Your task to perform on an android device: find photos in the google photos app Image 0: 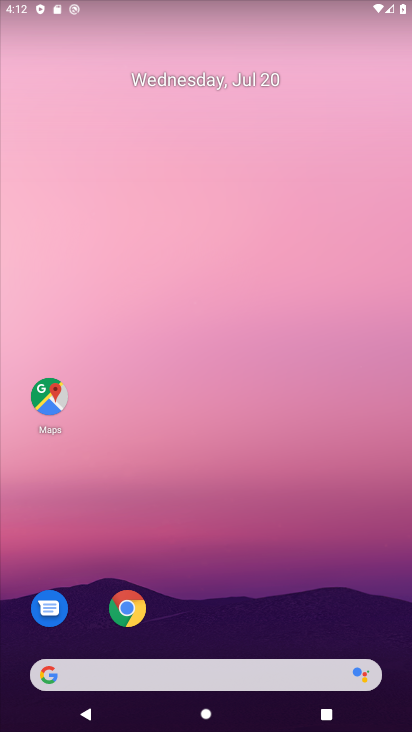
Step 0: click (275, 29)
Your task to perform on an android device: find photos in the google photos app Image 1: 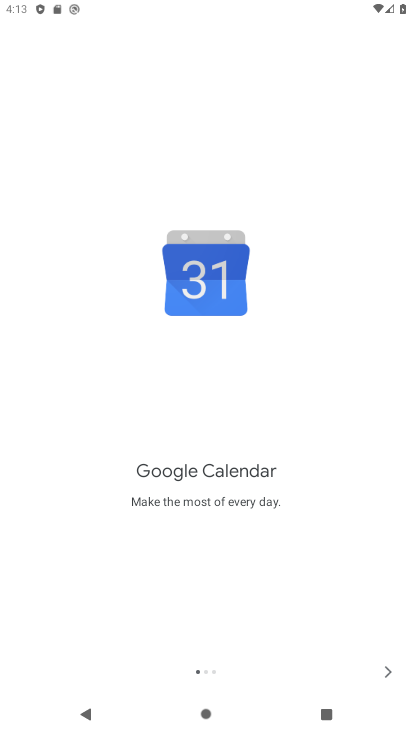
Step 1: press home button
Your task to perform on an android device: find photos in the google photos app Image 2: 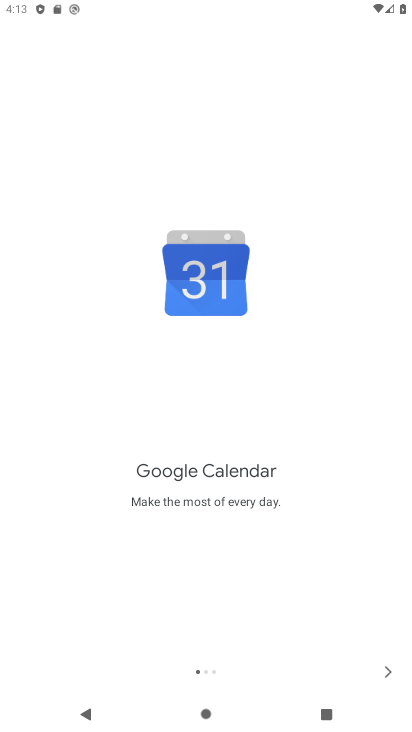
Step 2: press home button
Your task to perform on an android device: find photos in the google photos app Image 3: 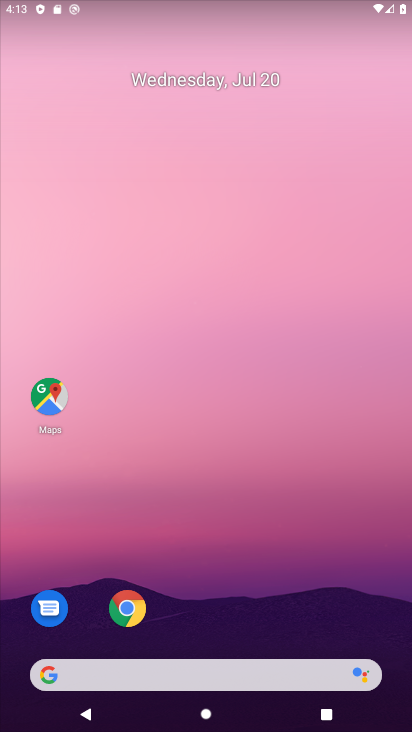
Step 3: drag from (262, 608) to (285, 179)
Your task to perform on an android device: find photos in the google photos app Image 4: 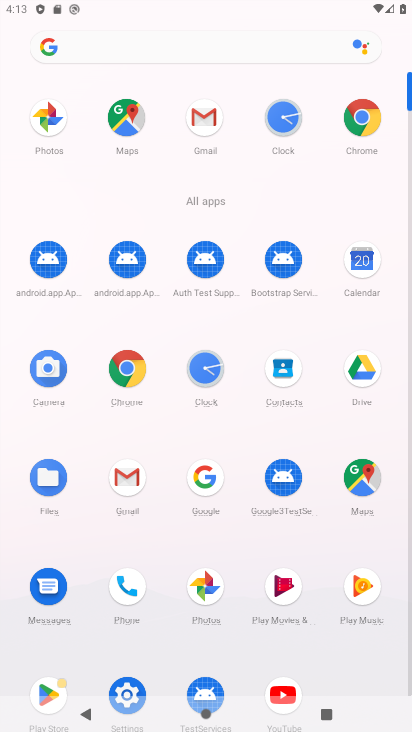
Step 4: click (40, 104)
Your task to perform on an android device: find photos in the google photos app Image 5: 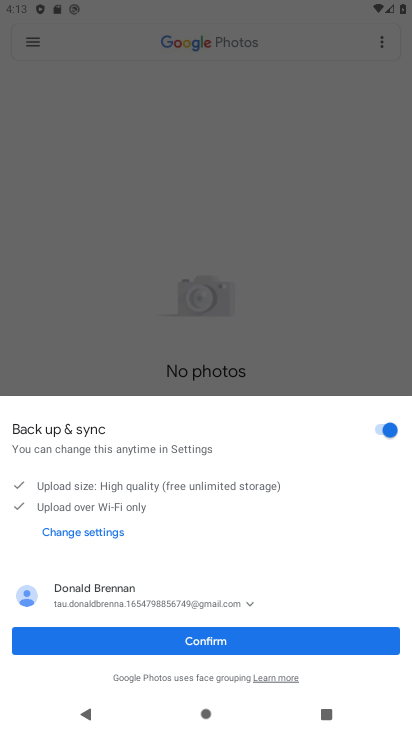
Step 5: click (237, 649)
Your task to perform on an android device: find photos in the google photos app Image 6: 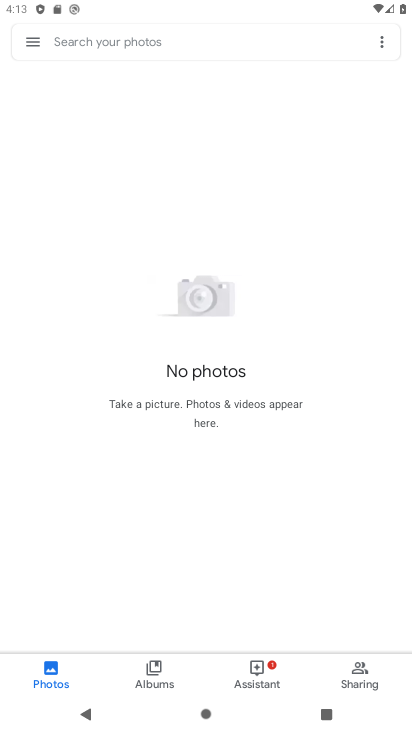
Step 6: task complete